Your task to perform on an android device: Go to notification settings Image 0: 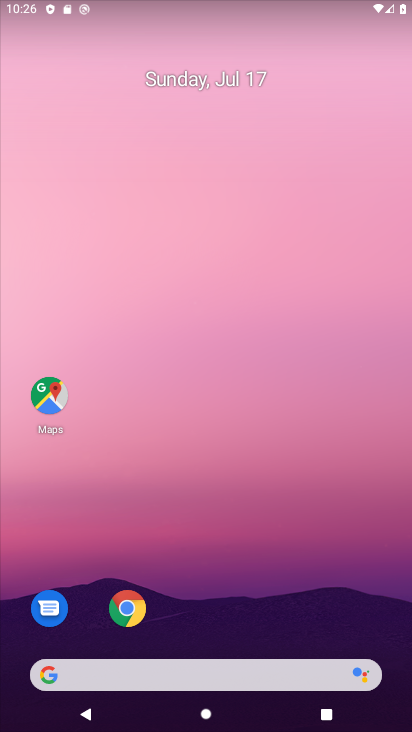
Step 0: drag from (49, 694) to (188, 97)
Your task to perform on an android device: Go to notification settings Image 1: 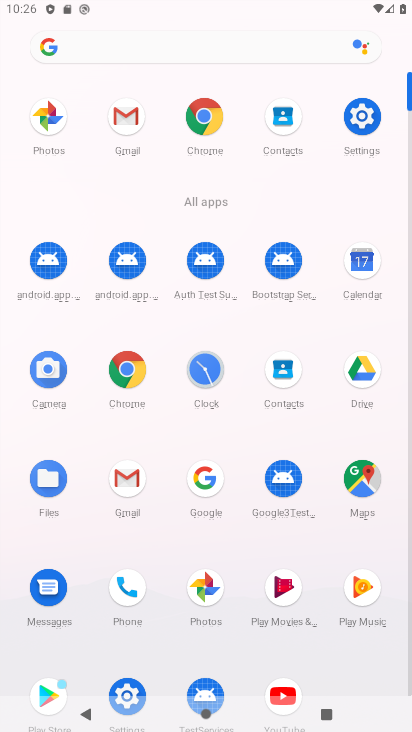
Step 1: click (107, 696)
Your task to perform on an android device: Go to notification settings Image 2: 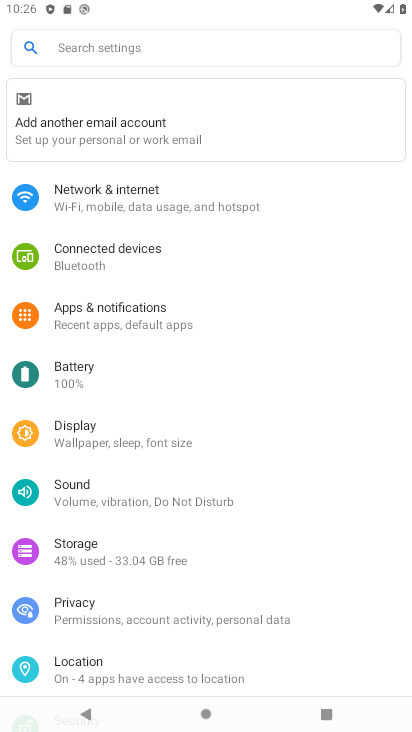
Step 2: click (118, 304)
Your task to perform on an android device: Go to notification settings Image 3: 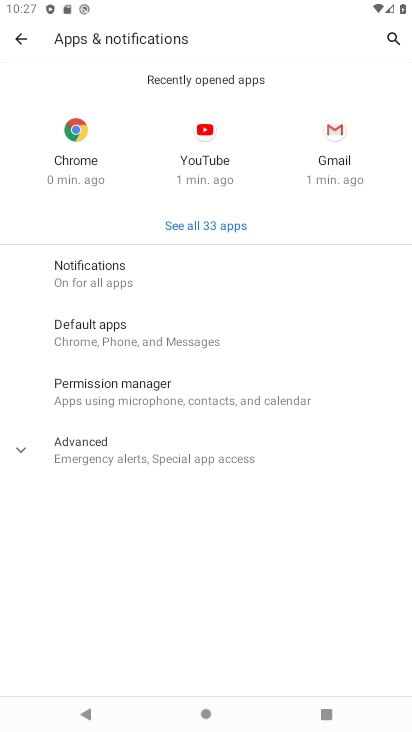
Step 3: task complete